Your task to perform on an android device: open app "Move to iOS" (install if not already installed) Image 0: 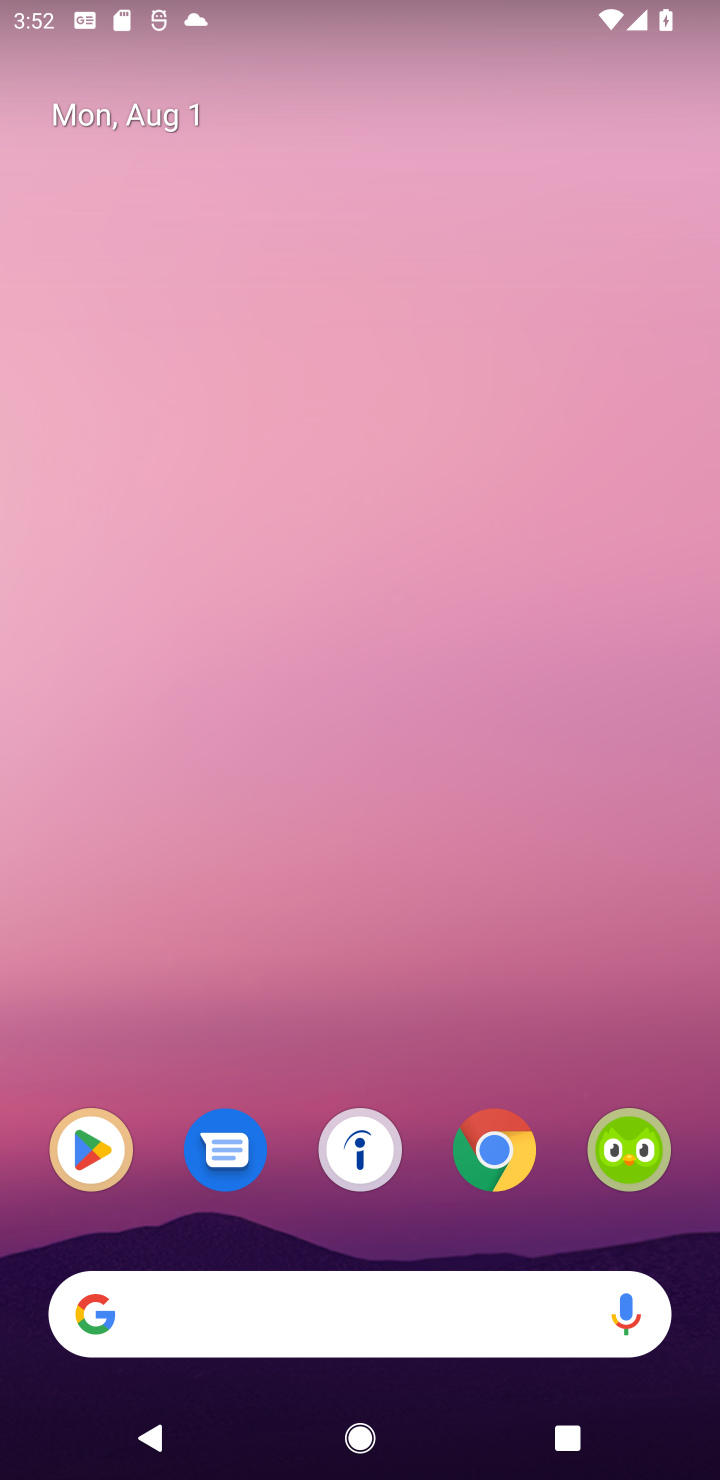
Step 0: click (88, 1177)
Your task to perform on an android device: open app "Move to iOS" (install if not already installed) Image 1: 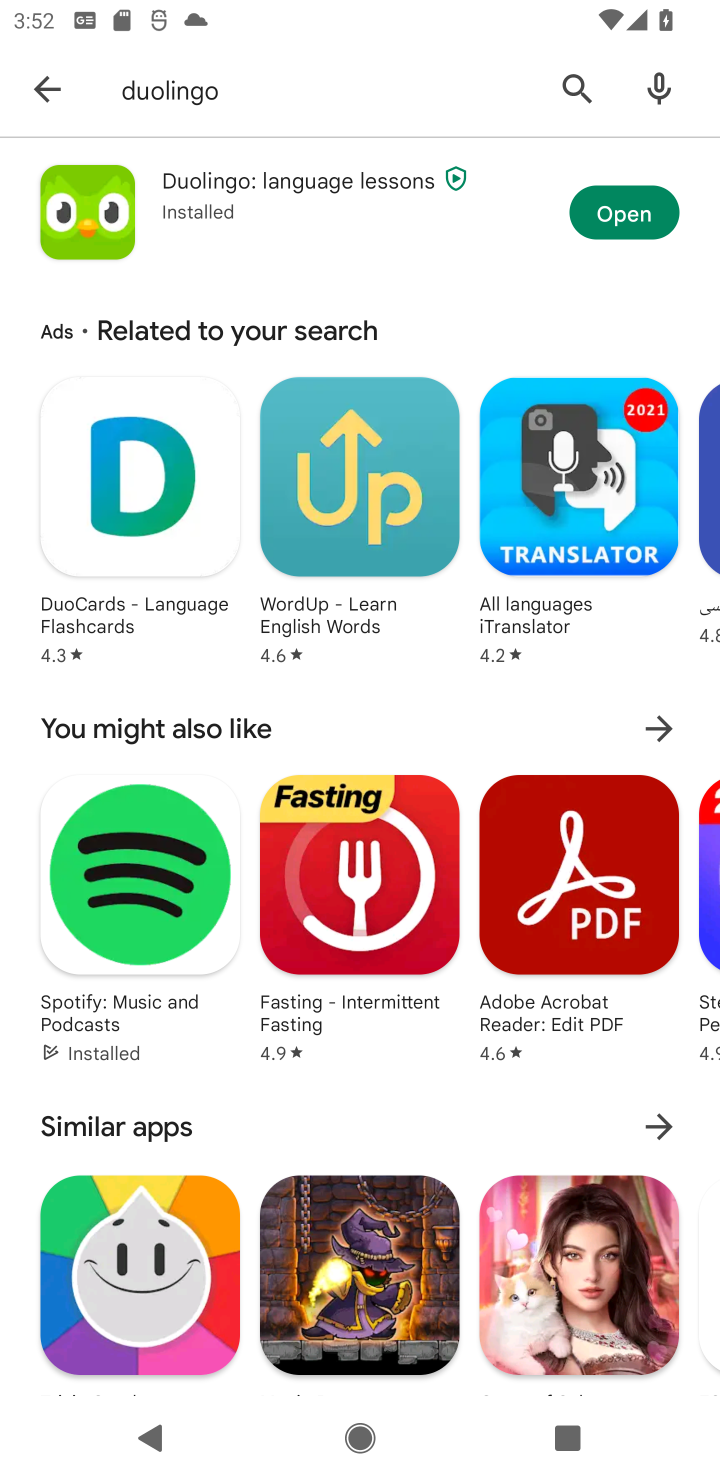
Step 1: click (586, 84)
Your task to perform on an android device: open app "Move to iOS" (install if not already installed) Image 2: 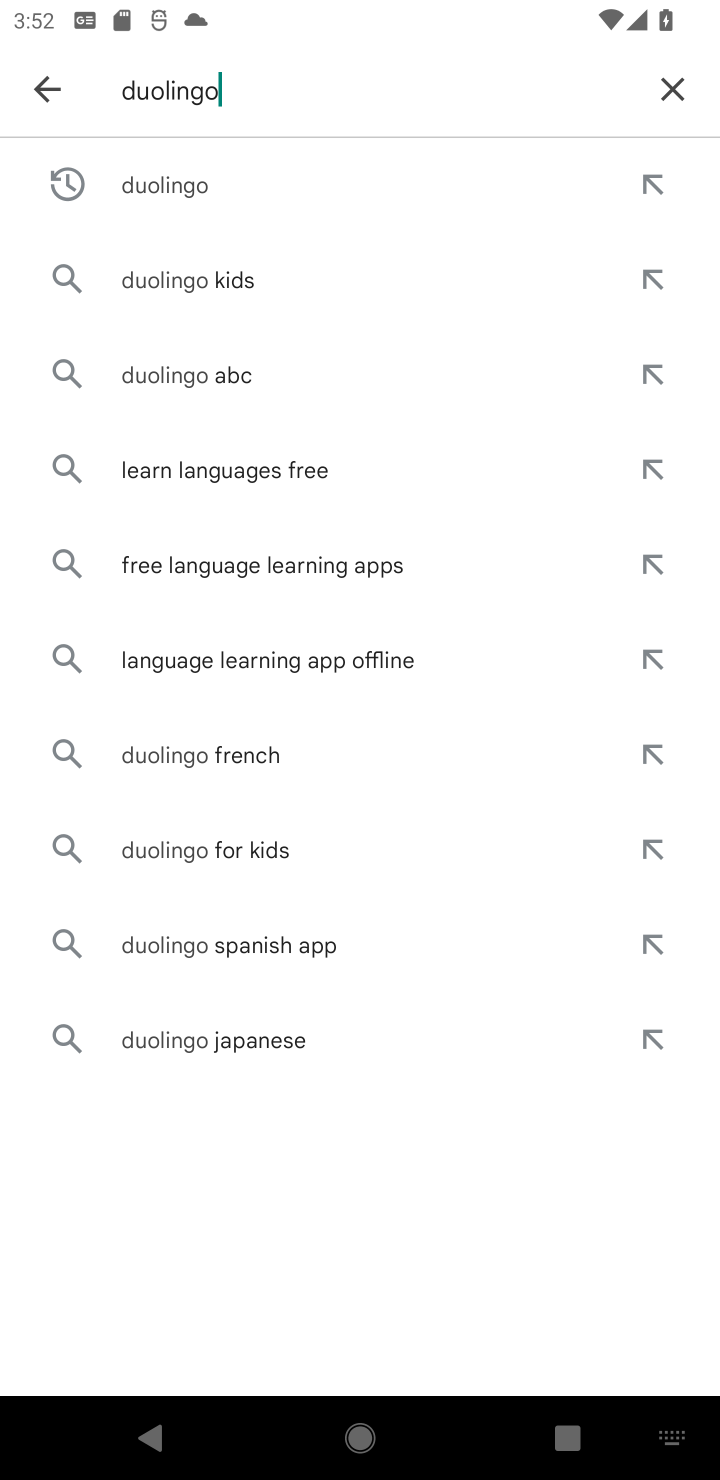
Step 2: click (673, 96)
Your task to perform on an android device: open app "Move to iOS" (install if not already installed) Image 3: 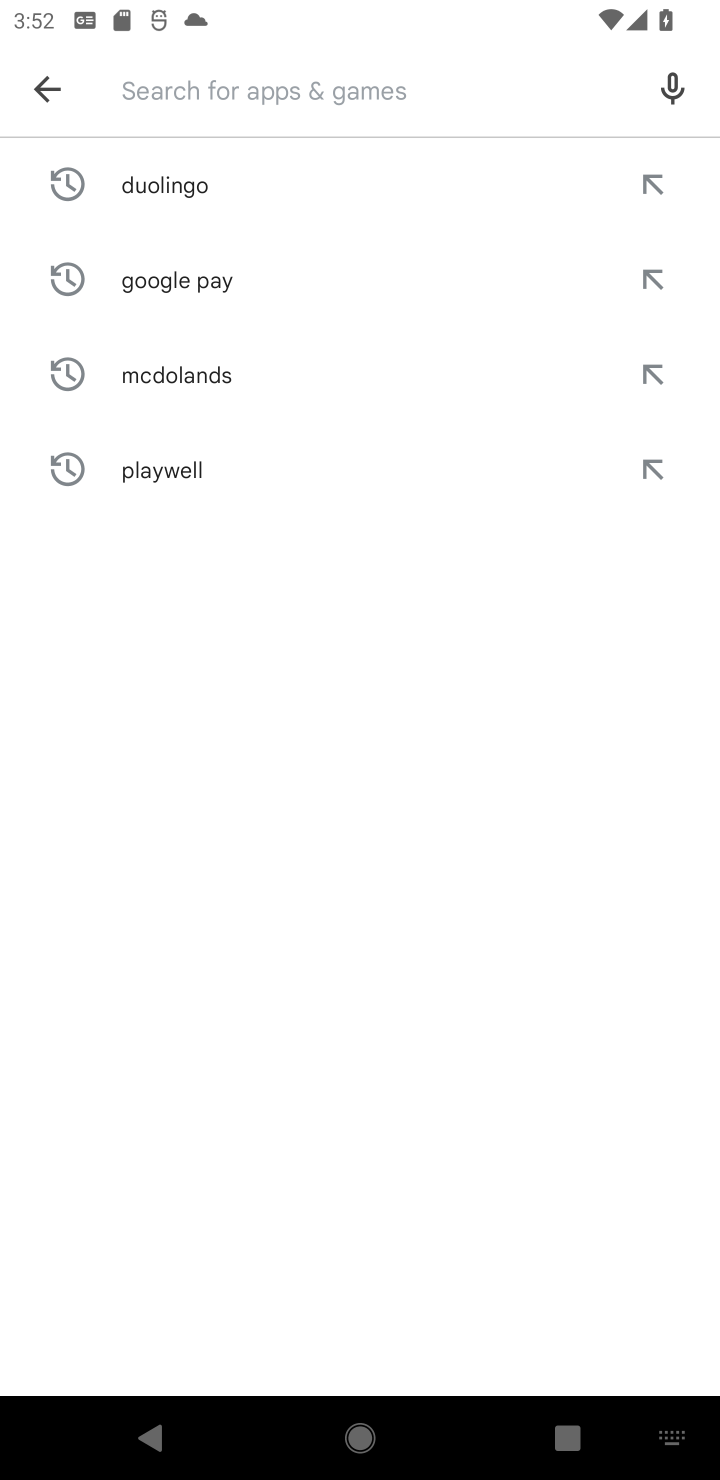
Step 3: type "move iso"
Your task to perform on an android device: open app "Move to iOS" (install if not already installed) Image 4: 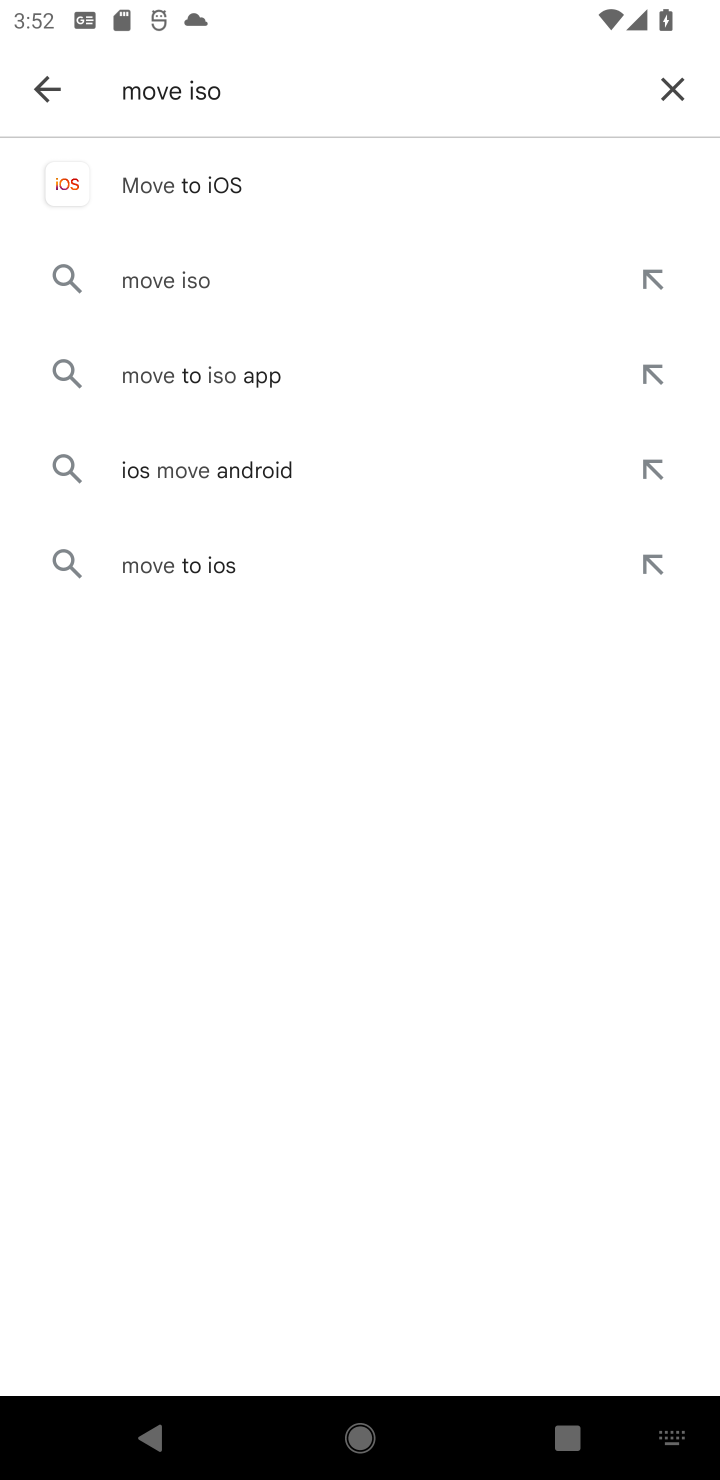
Step 4: click (163, 200)
Your task to perform on an android device: open app "Move to iOS" (install if not already installed) Image 5: 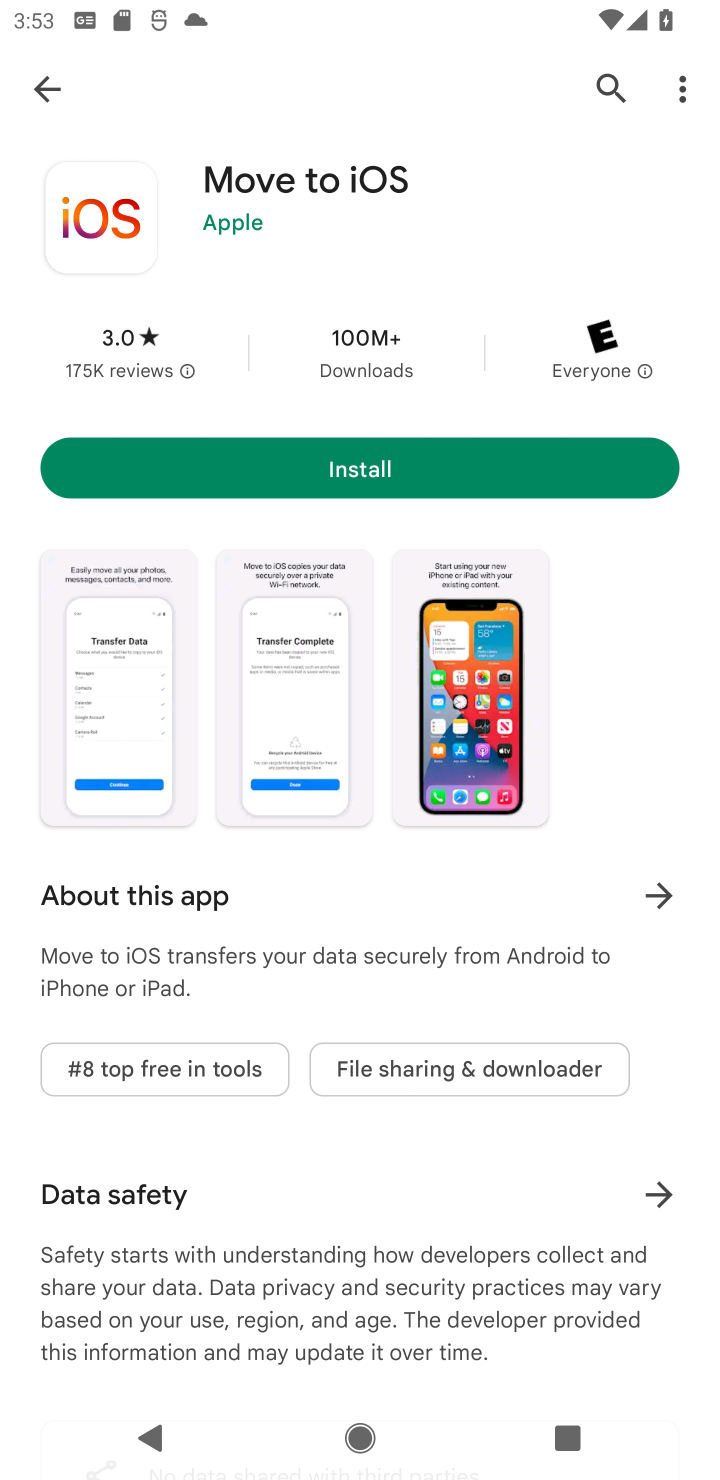
Step 5: click (491, 449)
Your task to perform on an android device: open app "Move to iOS" (install if not already installed) Image 6: 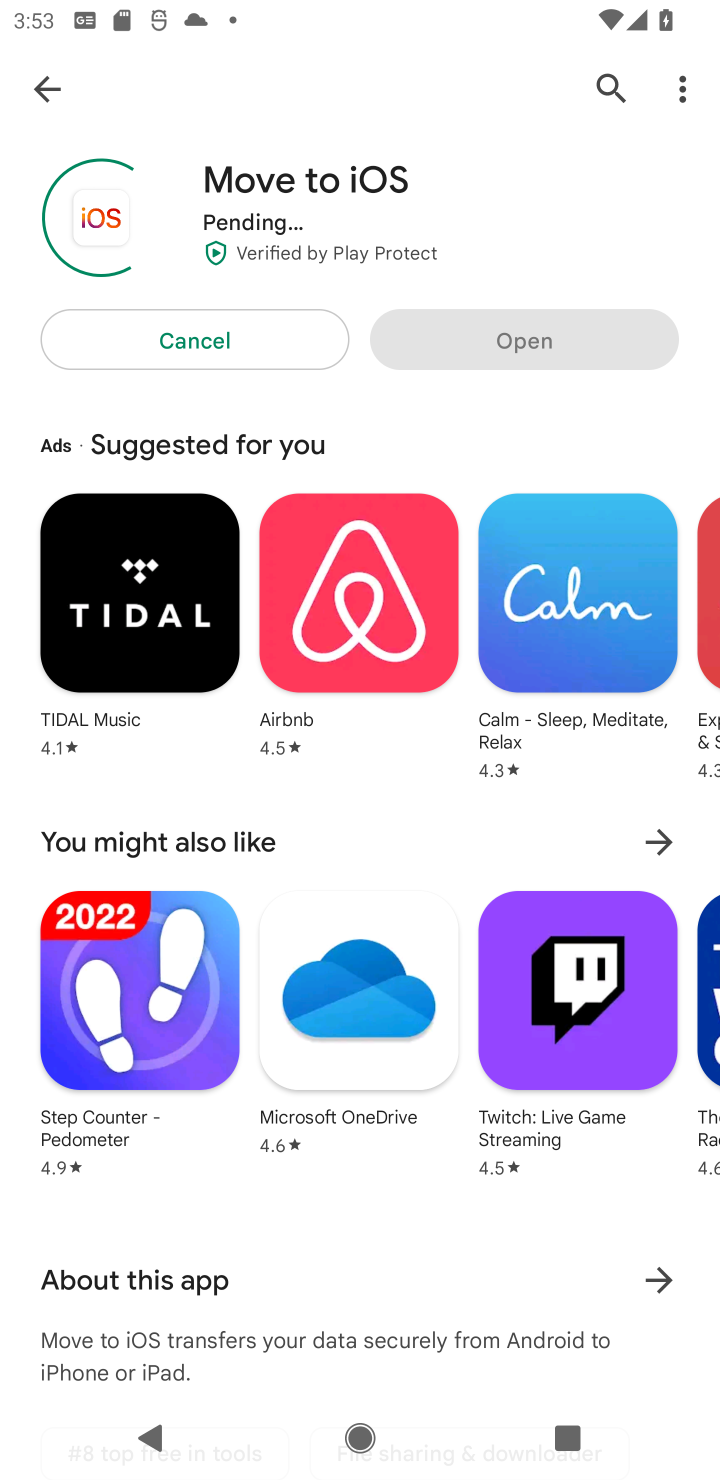
Step 6: task complete